Your task to perform on an android device: Open notification settings Image 0: 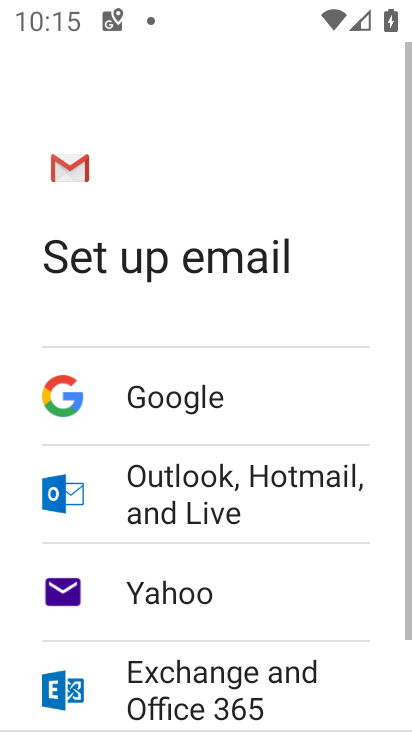
Step 0: press home button
Your task to perform on an android device: Open notification settings Image 1: 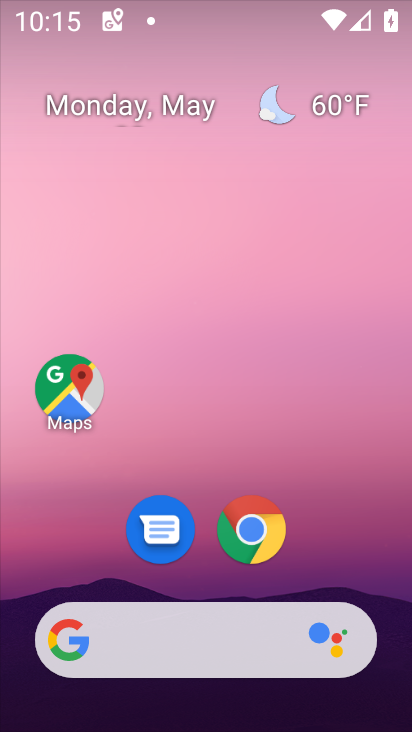
Step 1: drag from (196, 582) to (180, 45)
Your task to perform on an android device: Open notification settings Image 2: 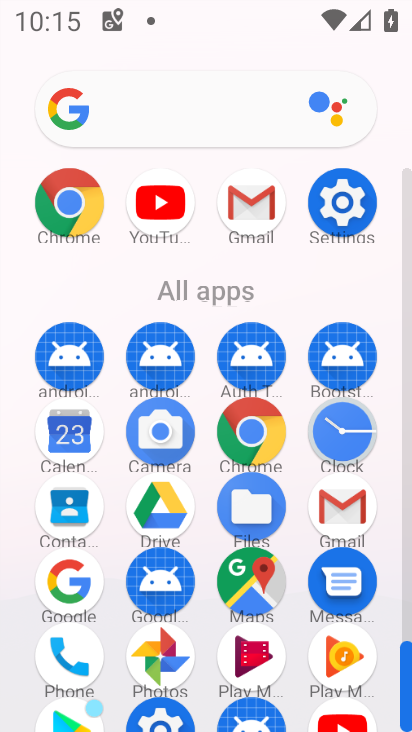
Step 2: click (360, 444)
Your task to perform on an android device: Open notification settings Image 3: 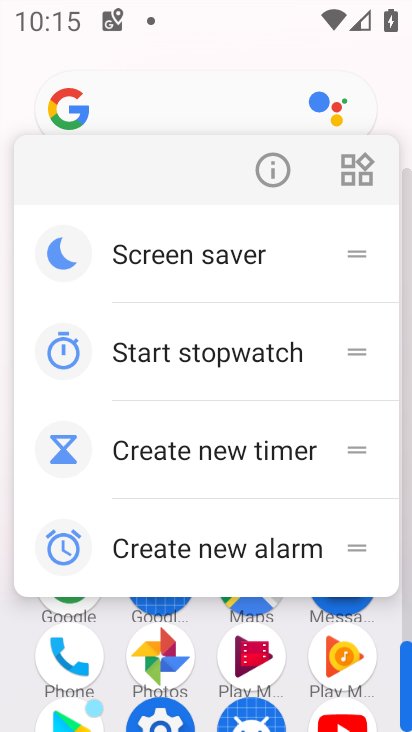
Step 3: press back button
Your task to perform on an android device: Open notification settings Image 4: 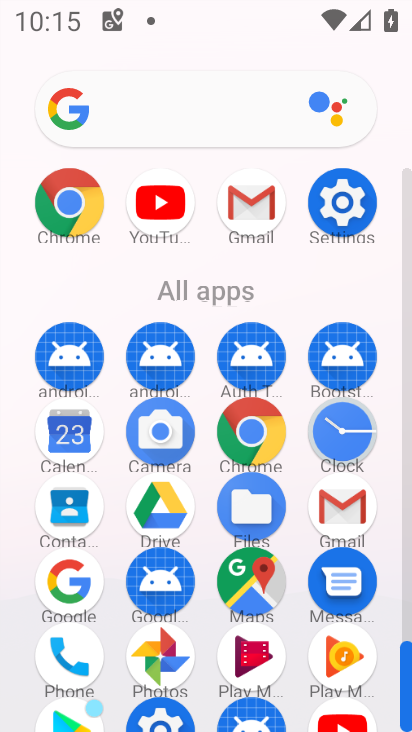
Step 4: click (335, 434)
Your task to perform on an android device: Open notification settings Image 5: 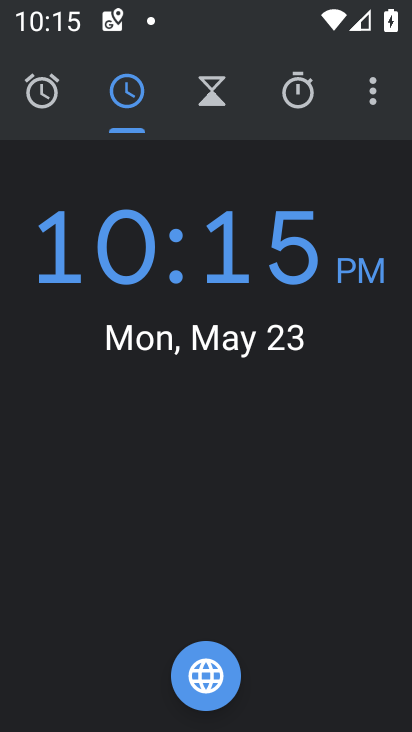
Step 5: click (202, 107)
Your task to perform on an android device: Open notification settings Image 6: 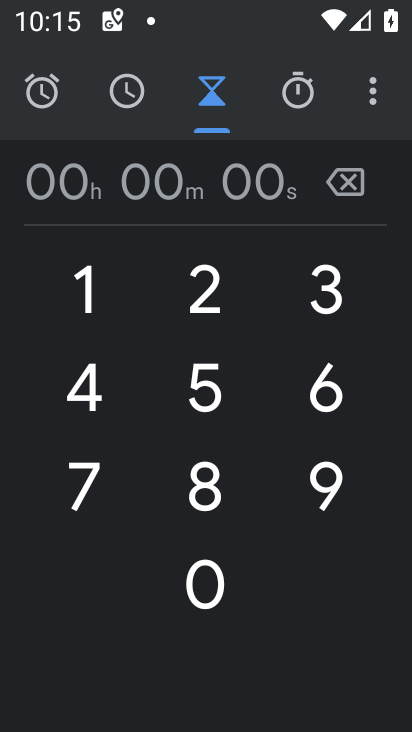
Step 6: click (212, 275)
Your task to perform on an android device: Open notification settings Image 7: 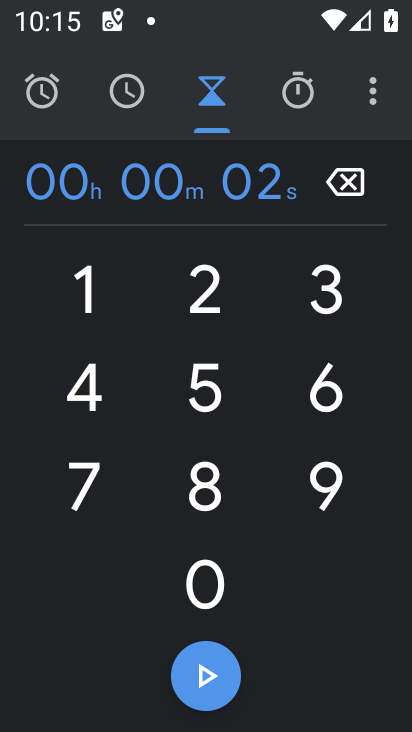
Step 7: click (212, 612)
Your task to perform on an android device: Open notification settings Image 8: 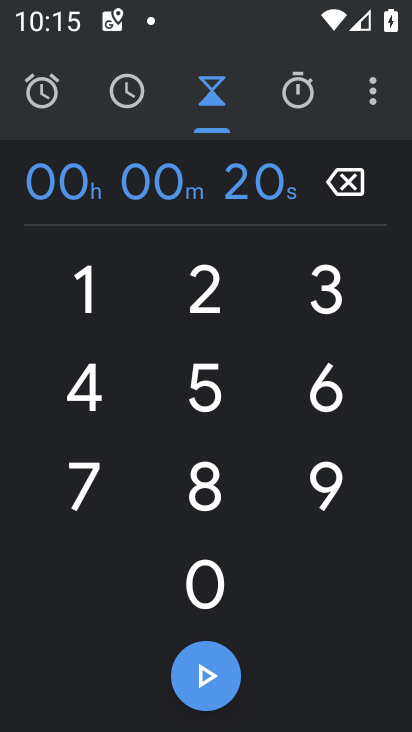
Step 8: click (87, 299)
Your task to perform on an android device: Open notification settings Image 9: 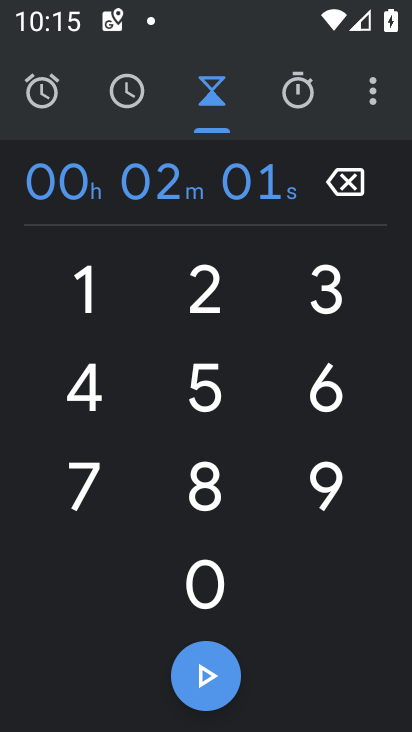
Step 9: click (219, 583)
Your task to perform on an android device: Open notification settings Image 10: 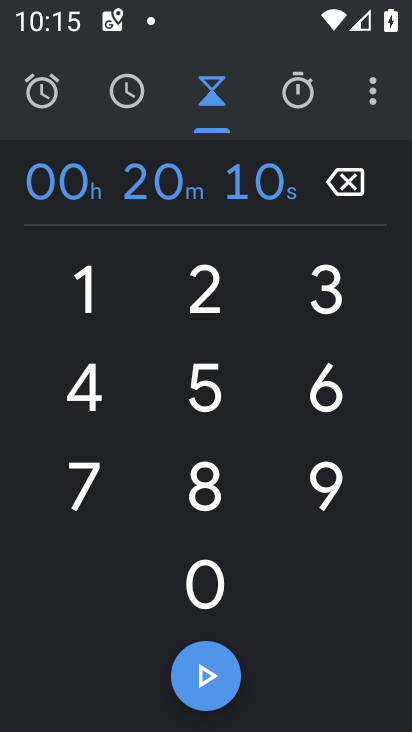
Step 10: click (210, 694)
Your task to perform on an android device: Open notification settings Image 11: 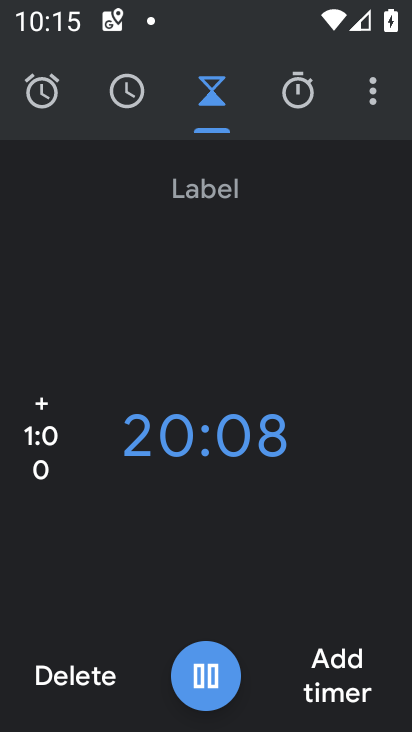
Step 11: click (325, 696)
Your task to perform on an android device: Open notification settings Image 12: 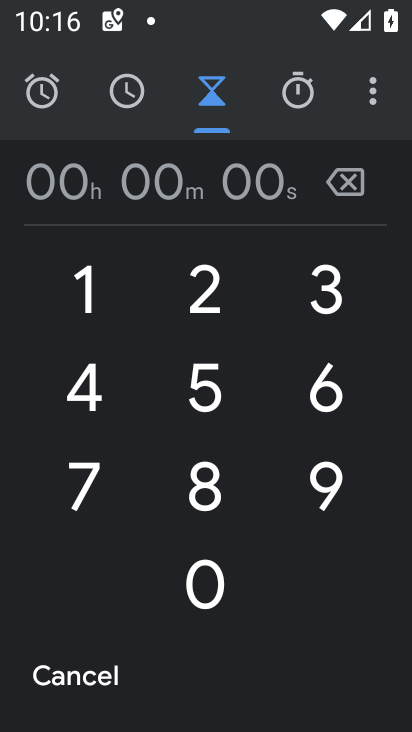
Step 12: task complete